Your task to perform on an android device: Search for sushi restaurants on Maps Image 0: 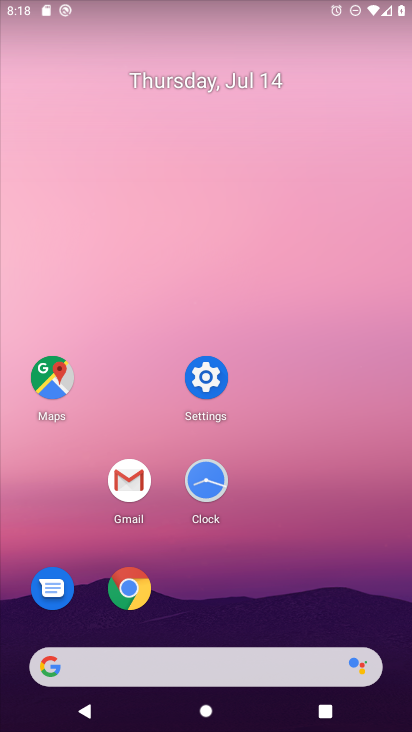
Step 0: click (46, 385)
Your task to perform on an android device: Search for sushi restaurants on Maps Image 1: 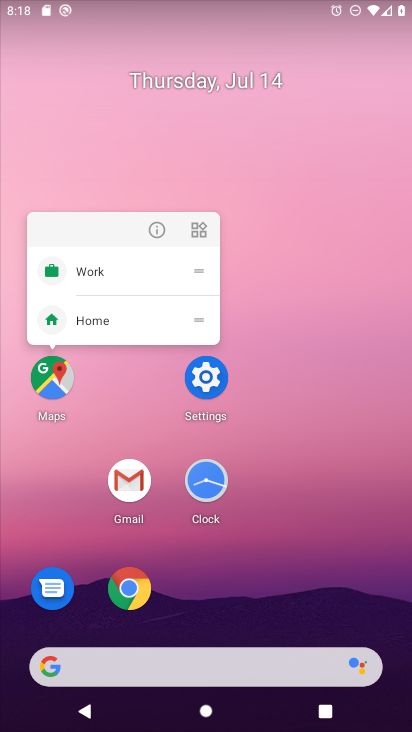
Step 1: click (43, 365)
Your task to perform on an android device: Search for sushi restaurants on Maps Image 2: 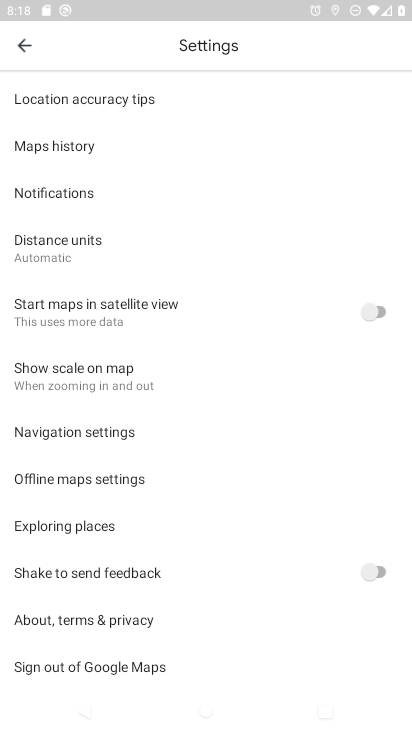
Step 2: click (85, 61)
Your task to perform on an android device: Search for sushi restaurants on Maps Image 3: 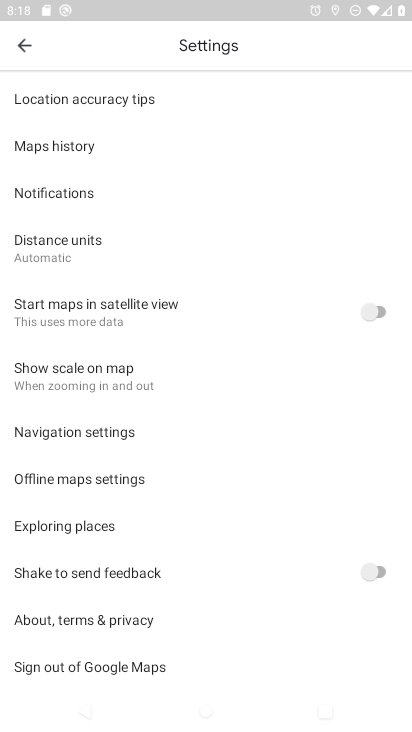
Step 3: click (23, 47)
Your task to perform on an android device: Search for sushi restaurants on Maps Image 4: 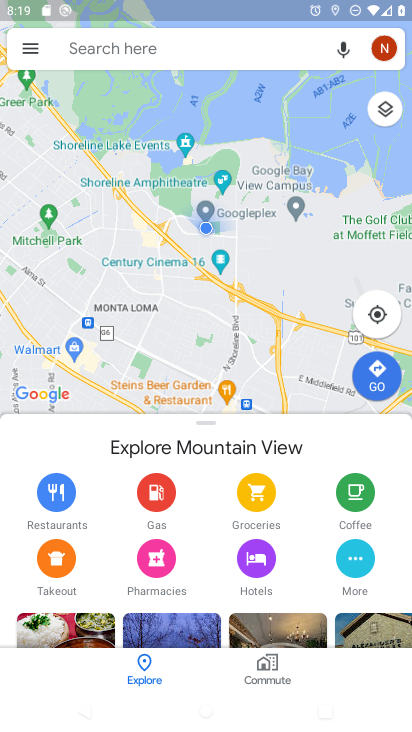
Step 4: click (110, 43)
Your task to perform on an android device: Search for sushi restaurants on Maps Image 5: 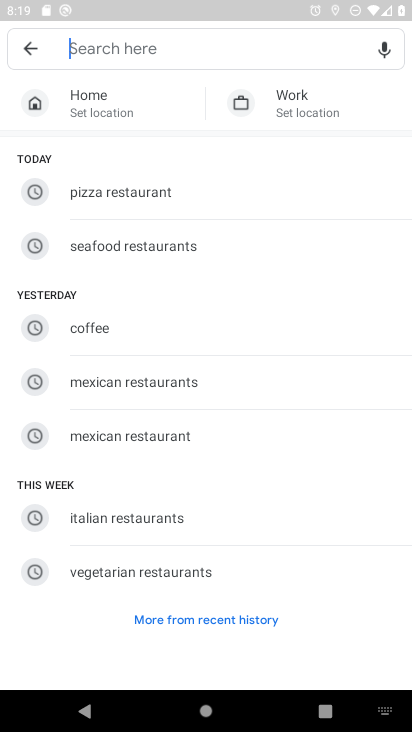
Step 5: type "sushi restaurants"
Your task to perform on an android device: Search for sushi restaurants on Maps Image 6: 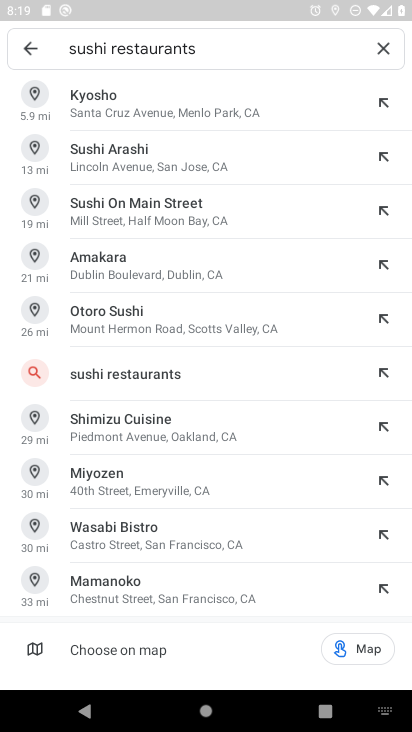
Step 6: click (137, 381)
Your task to perform on an android device: Search for sushi restaurants on Maps Image 7: 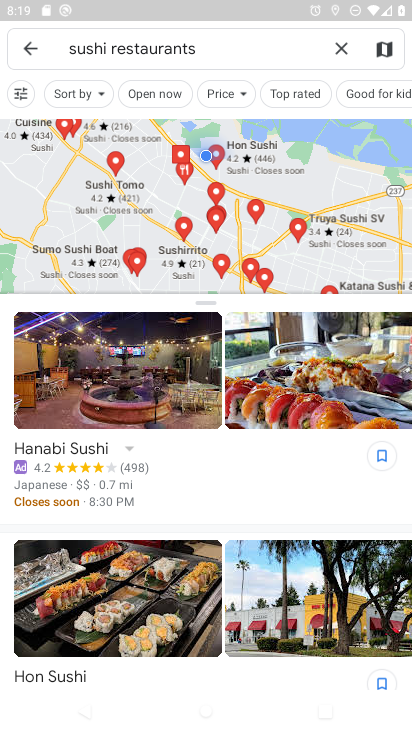
Step 7: task complete